Your task to perform on an android device: allow notifications from all sites in the chrome app Image 0: 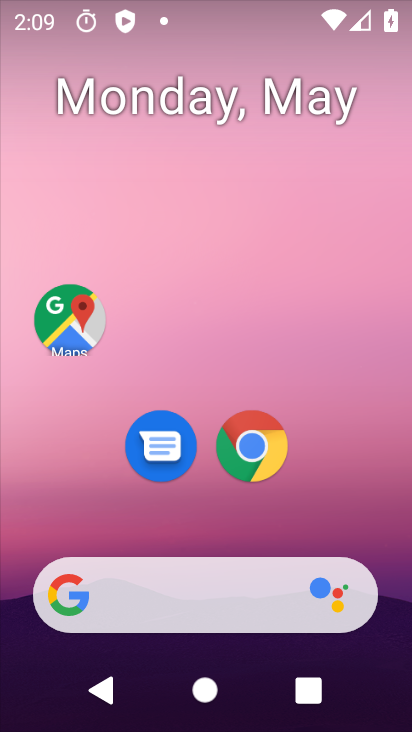
Step 0: drag from (234, 570) to (229, 211)
Your task to perform on an android device: allow notifications from all sites in the chrome app Image 1: 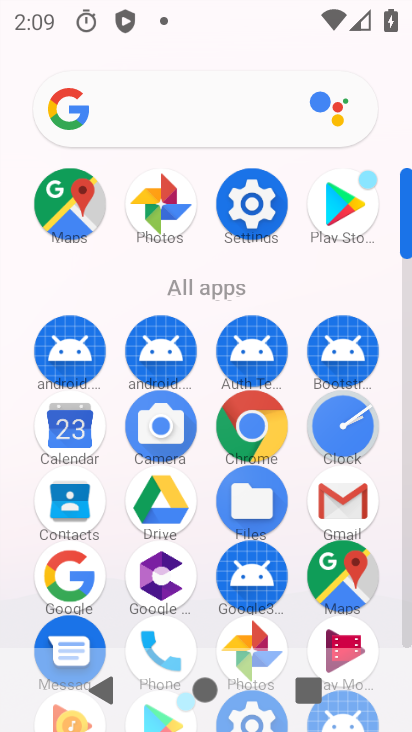
Step 1: click (248, 437)
Your task to perform on an android device: allow notifications from all sites in the chrome app Image 2: 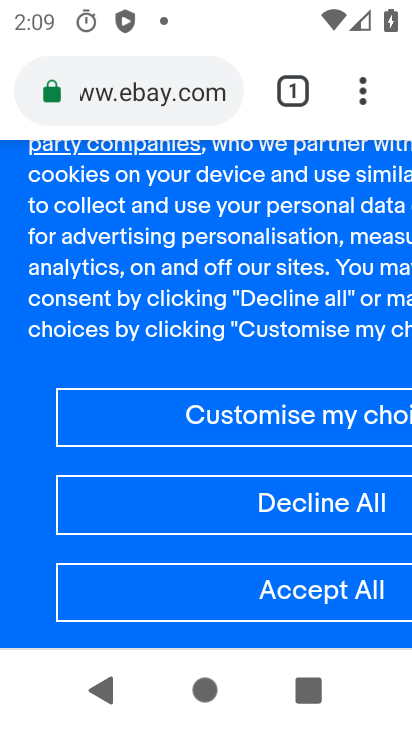
Step 2: drag from (355, 87) to (118, 479)
Your task to perform on an android device: allow notifications from all sites in the chrome app Image 3: 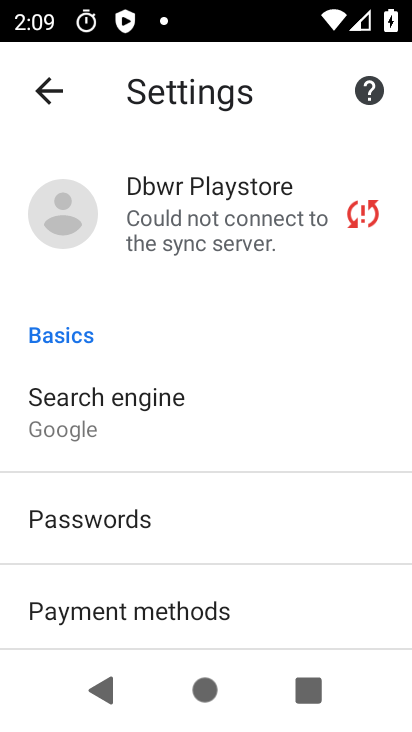
Step 3: drag from (161, 572) to (163, 227)
Your task to perform on an android device: allow notifications from all sites in the chrome app Image 4: 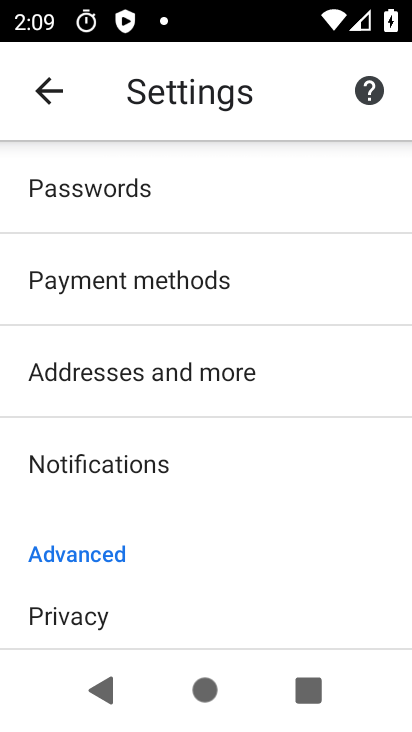
Step 4: drag from (191, 495) to (153, 160)
Your task to perform on an android device: allow notifications from all sites in the chrome app Image 5: 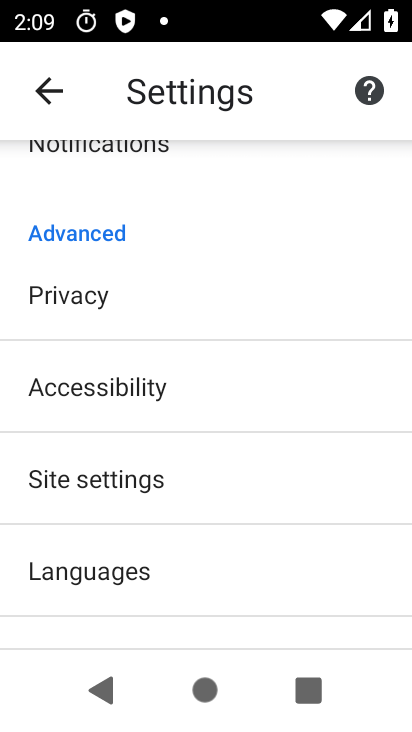
Step 5: click (142, 497)
Your task to perform on an android device: allow notifications from all sites in the chrome app Image 6: 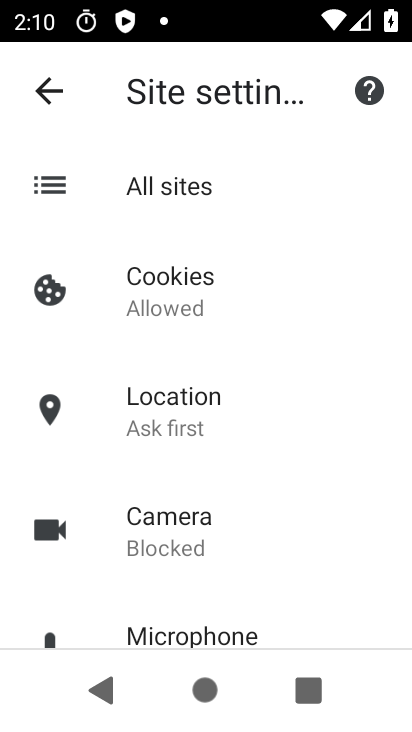
Step 6: drag from (205, 551) to (196, 152)
Your task to perform on an android device: allow notifications from all sites in the chrome app Image 7: 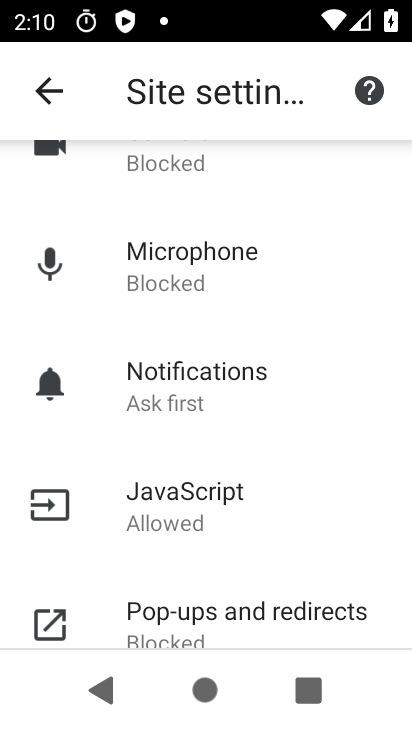
Step 7: click (215, 371)
Your task to perform on an android device: allow notifications from all sites in the chrome app Image 8: 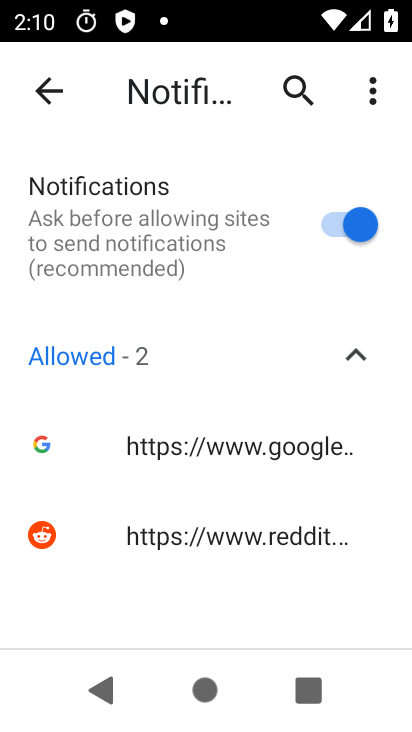
Step 8: task complete